Your task to perform on an android device: Open Yahoo.com Image 0: 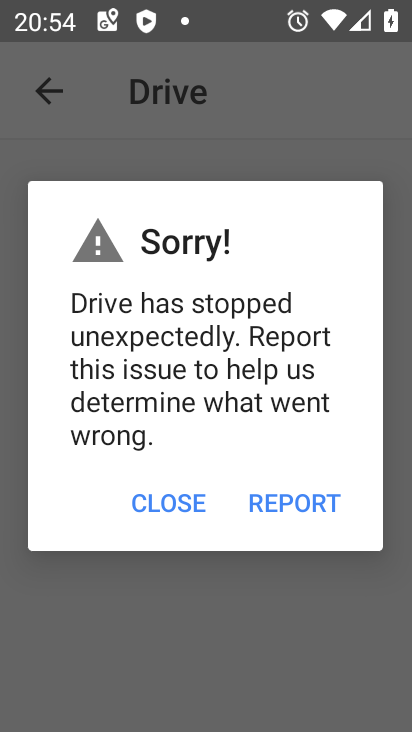
Step 0: press home button
Your task to perform on an android device: Open Yahoo.com Image 1: 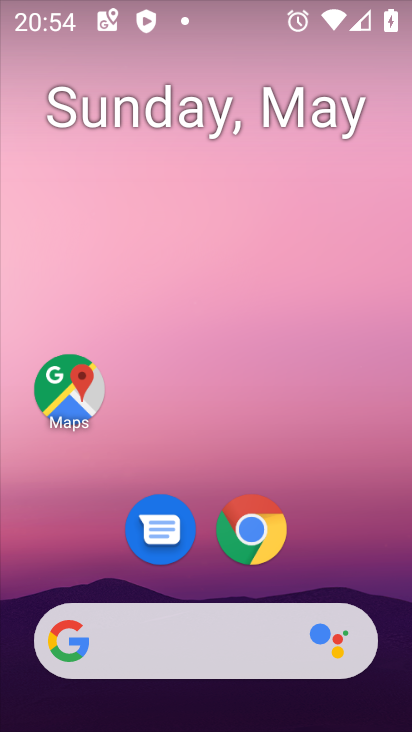
Step 1: click (251, 532)
Your task to perform on an android device: Open Yahoo.com Image 2: 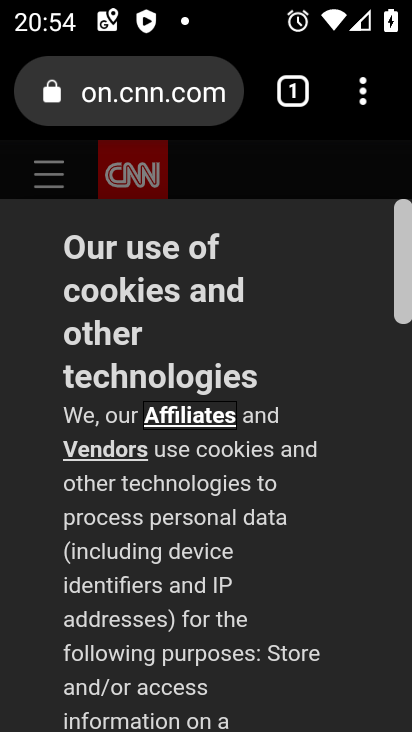
Step 2: click (109, 101)
Your task to perform on an android device: Open Yahoo.com Image 3: 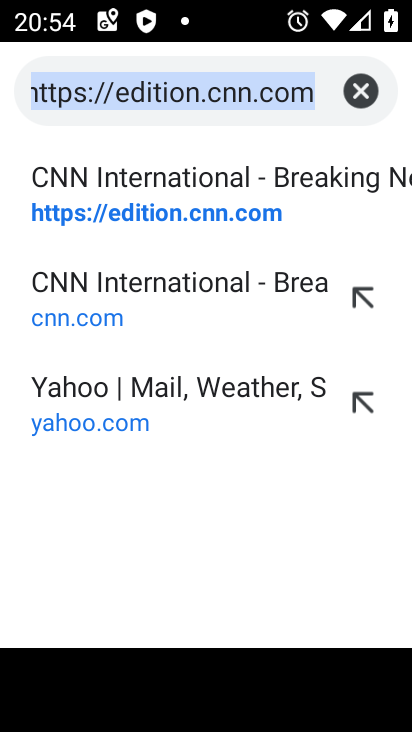
Step 3: click (68, 420)
Your task to perform on an android device: Open Yahoo.com Image 4: 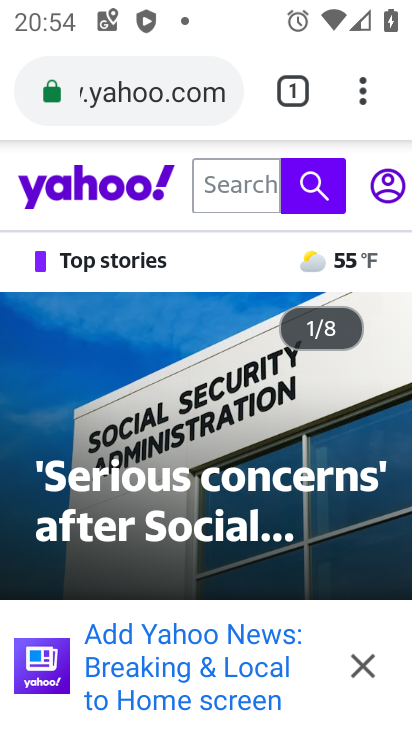
Step 4: task complete